Your task to perform on an android device: change the upload size in google photos Image 0: 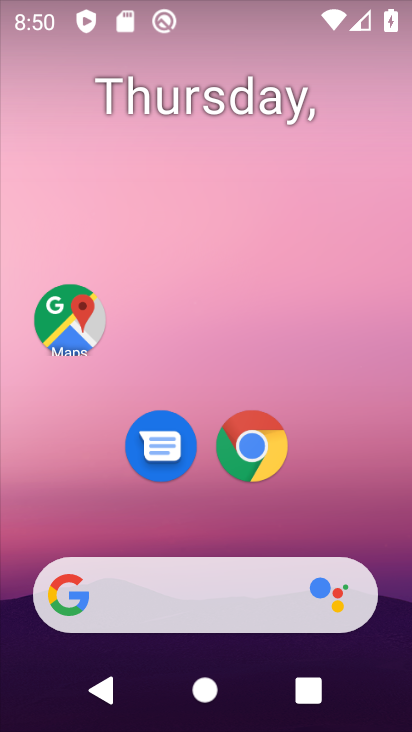
Step 0: press home button
Your task to perform on an android device: change the upload size in google photos Image 1: 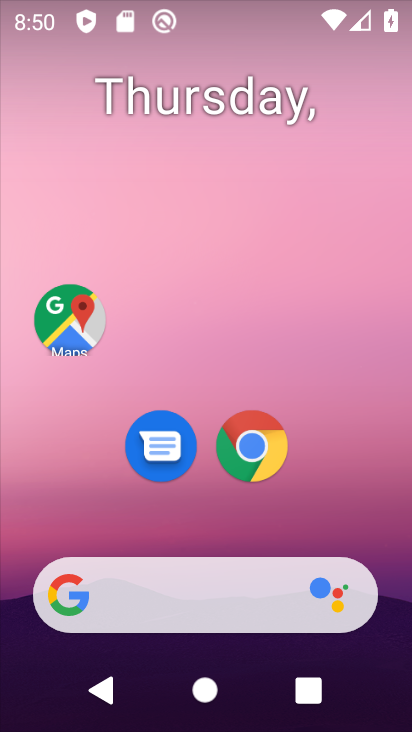
Step 1: drag from (330, 539) to (345, 28)
Your task to perform on an android device: change the upload size in google photos Image 2: 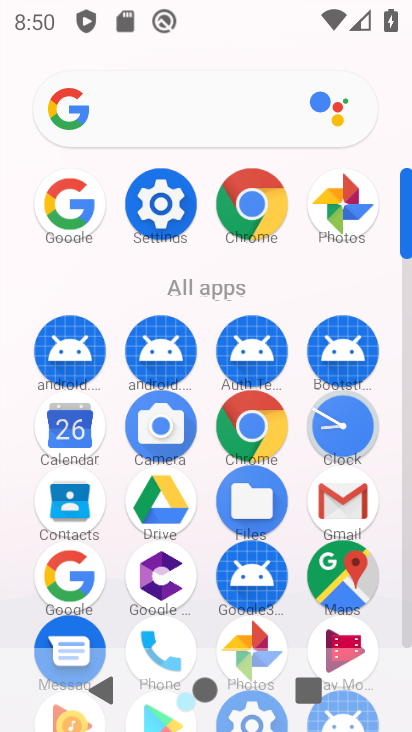
Step 2: click (363, 200)
Your task to perform on an android device: change the upload size in google photos Image 3: 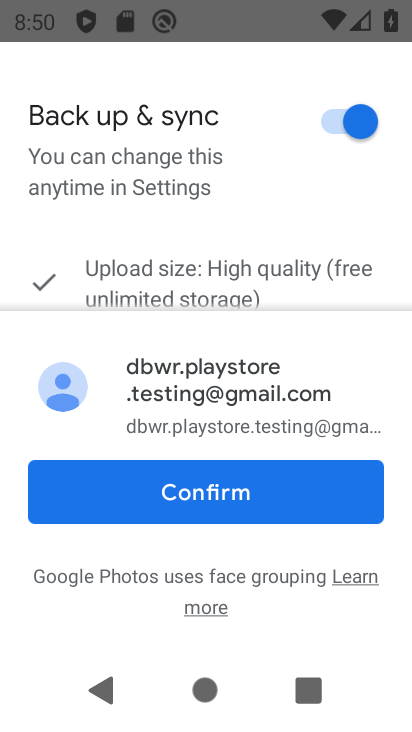
Step 3: click (313, 506)
Your task to perform on an android device: change the upload size in google photos Image 4: 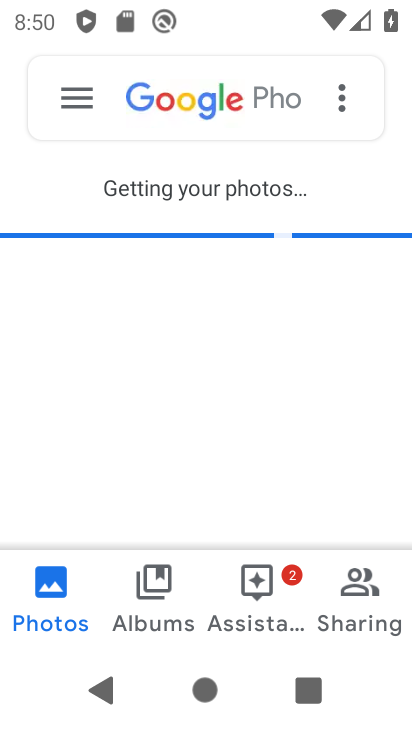
Step 4: click (69, 88)
Your task to perform on an android device: change the upload size in google photos Image 5: 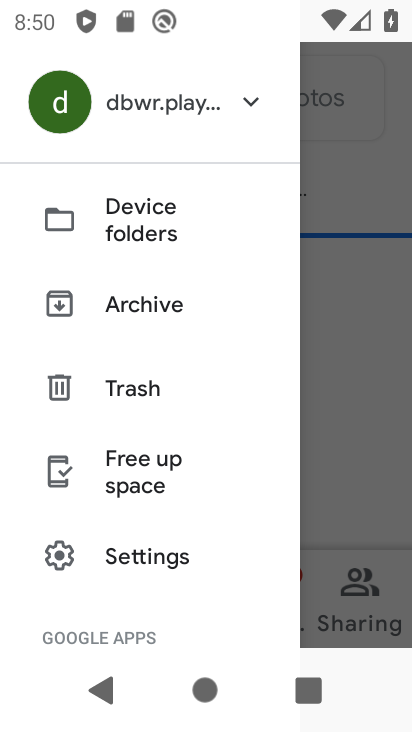
Step 5: click (185, 549)
Your task to perform on an android device: change the upload size in google photos Image 6: 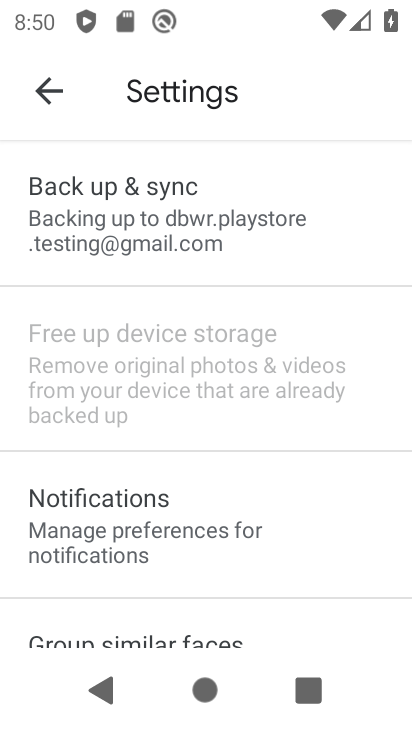
Step 6: click (198, 229)
Your task to perform on an android device: change the upload size in google photos Image 7: 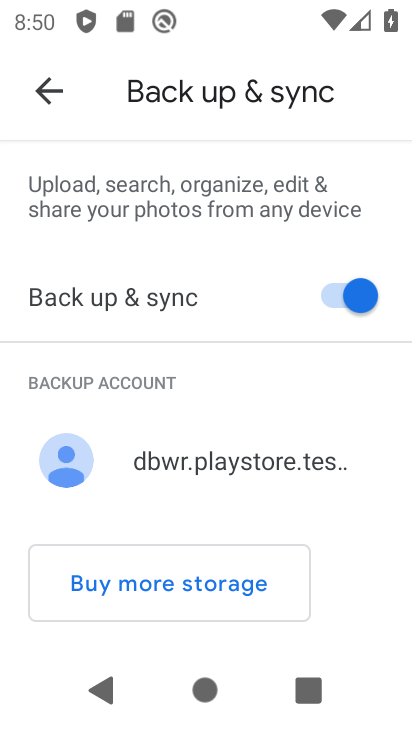
Step 7: drag from (338, 627) to (372, 162)
Your task to perform on an android device: change the upload size in google photos Image 8: 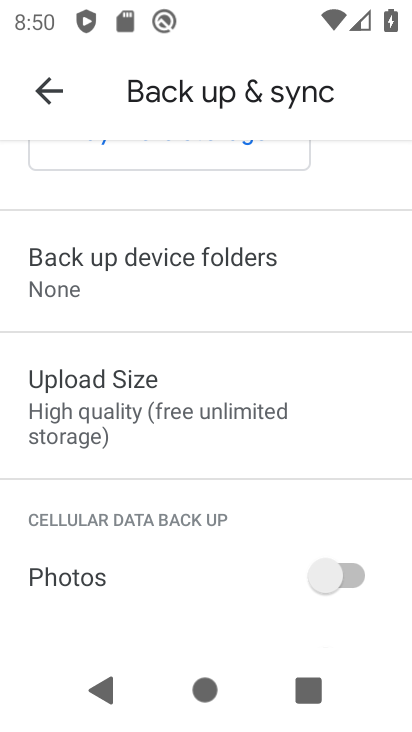
Step 8: click (170, 421)
Your task to perform on an android device: change the upload size in google photos Image 9: 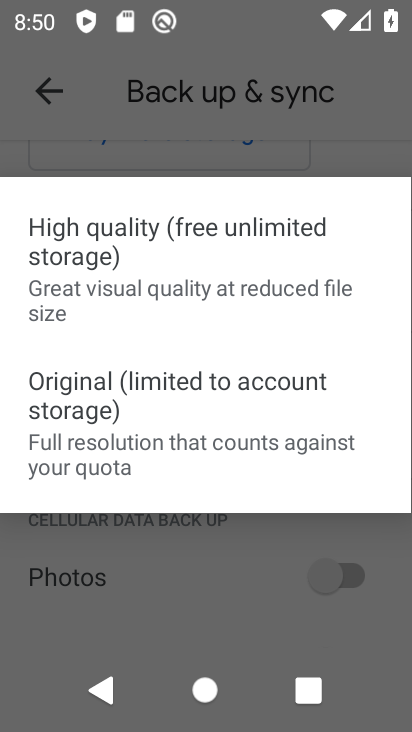
Step 9: click (188, 427)
Your task to perform on an android device: change the upload size in google photos Image 10: 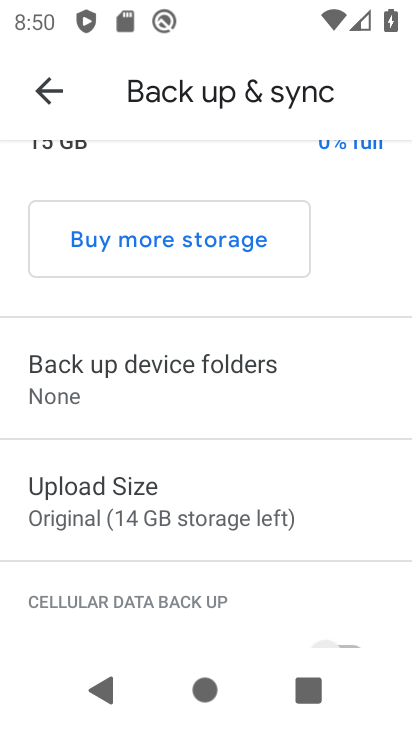
Step 10: task complete